Your task to perform on an android device: Open ESPN.com Image 0: 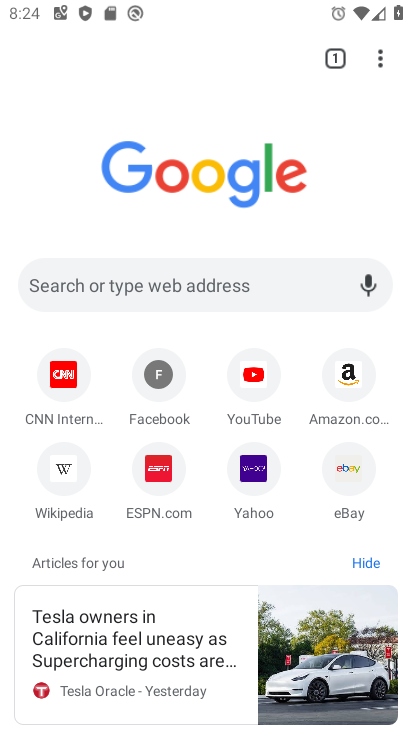
Step 0: drag from (211, 611) to (256, 184)
Your task to perform on an android device: Open ESPN.com Image 1: 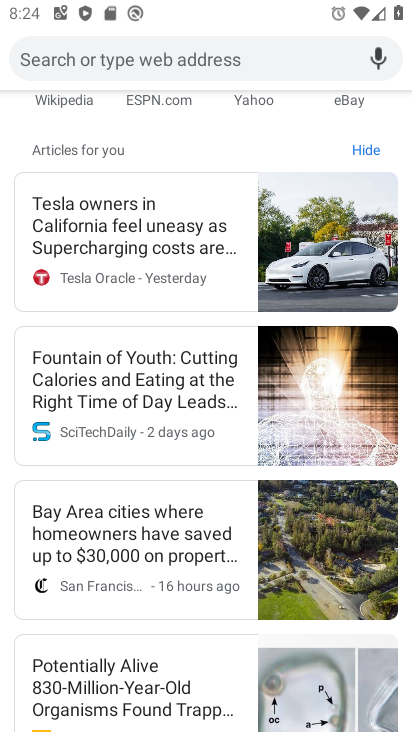
Step 1: drag from (193, 689) to (252, 181)
Your task to perform on an android device: Open ESPN.com Image 2: 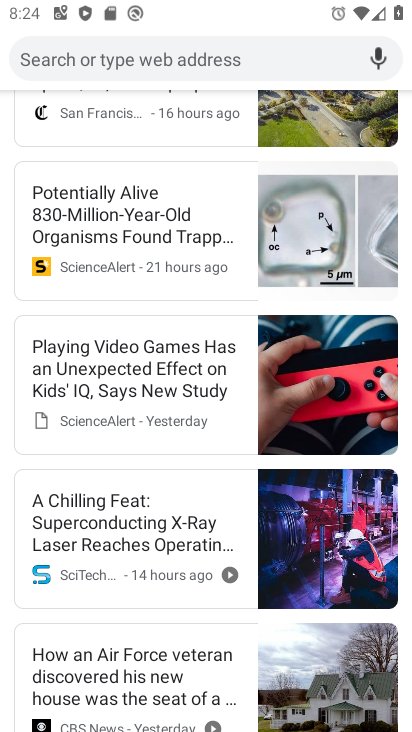
Step 2: drag from (272, 150) to (250, 713)
Your task to perform on an android device: Open ESPN.com Image 3: 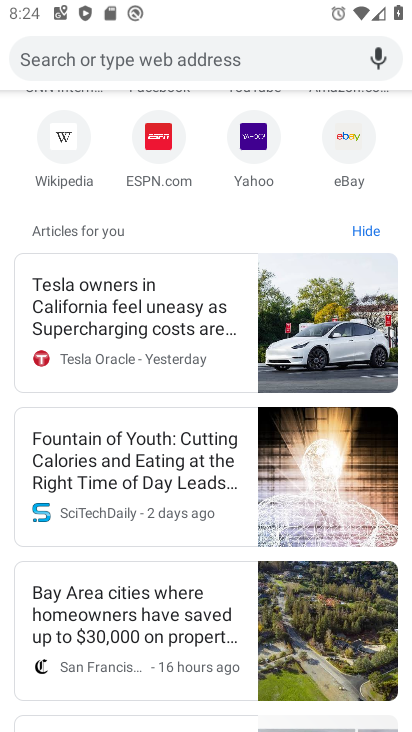
Step 3: click (137, 52)
Your task to perform on an android device: Open ESPN.com Image 4: 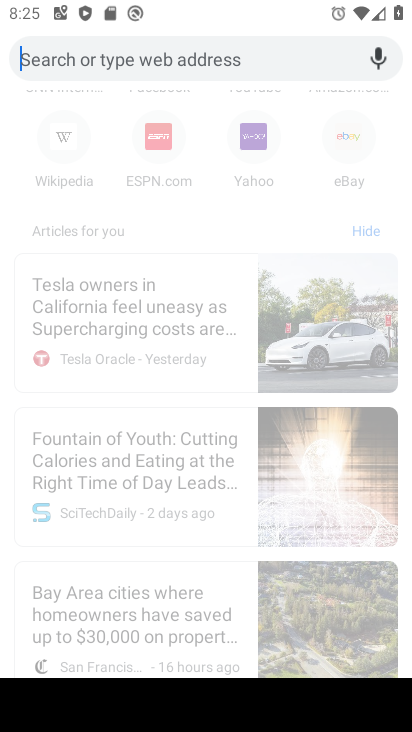
Step 4: type "espn.com"
Your task to perform on an android device: Open ESPN.com Image 5: 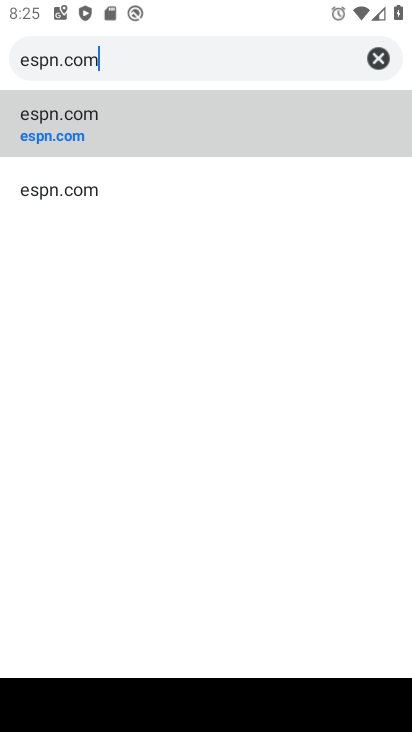
Step 5: click (70, 123)
Your task to perform on an android device: Open ESPN.com Image 6: 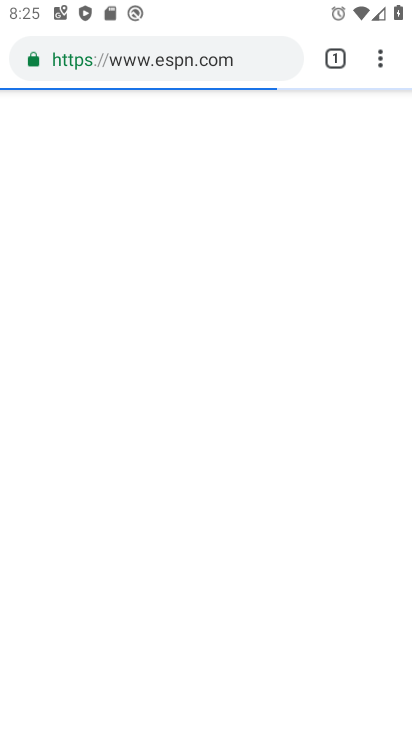
Step 6: task complete